Your task to perform on an android device: Go to Amazon Image 0: 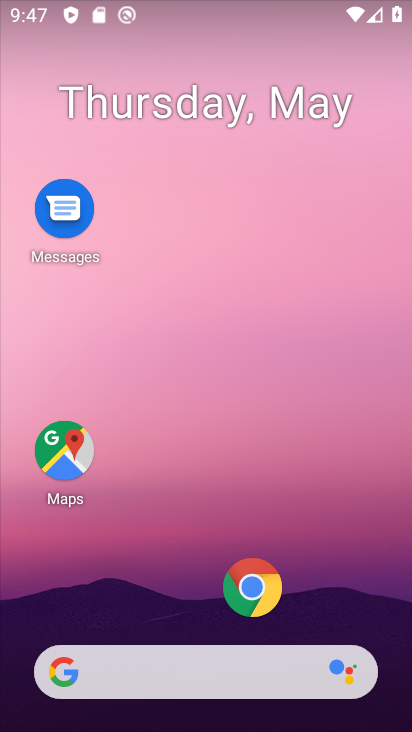
Step 0: click (262, 582)
Your task to perform on an android device: Go to Amazon Image 1: 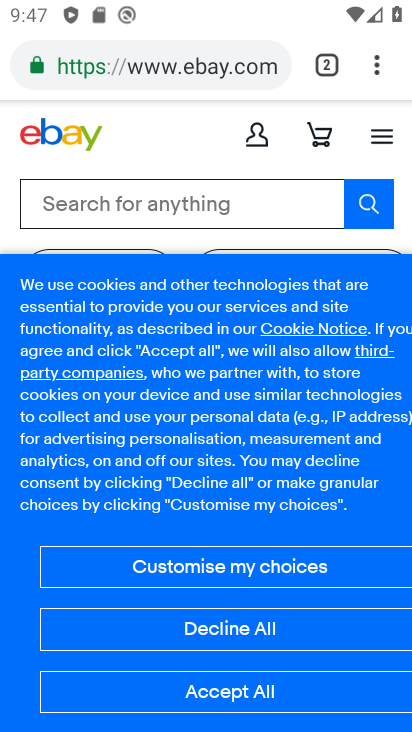
Step 1: click (321, 52)
Your task to perform on an android device: Go to Amazon Image 2: 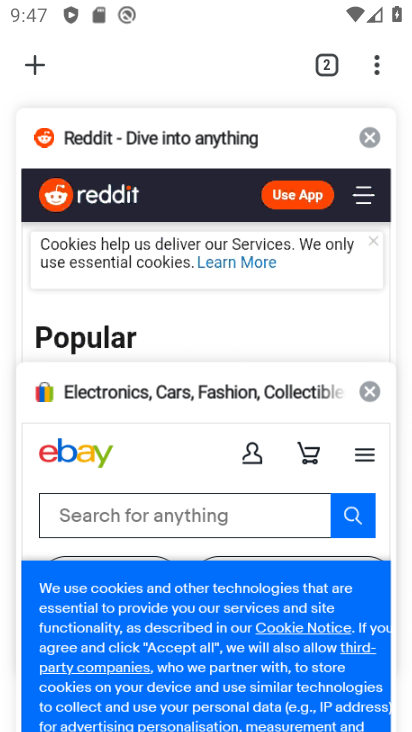
Step 2: click (29, 62)
Your task to perform on an android device: Go to Amazon Image 3: 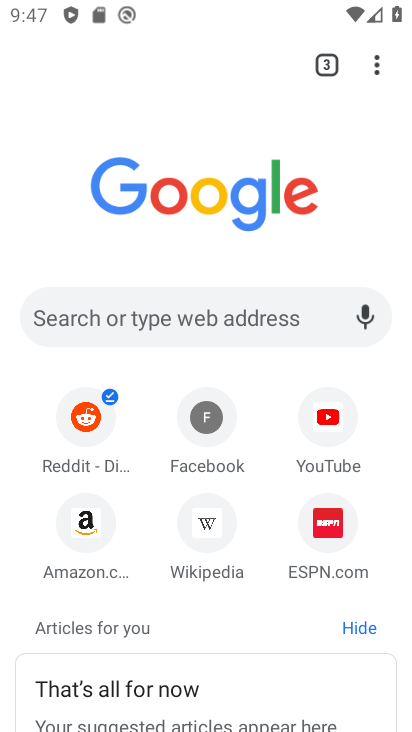
Step 3: click (72, 531)
Your task to perform on an android device: Go to Amazon Image 4: 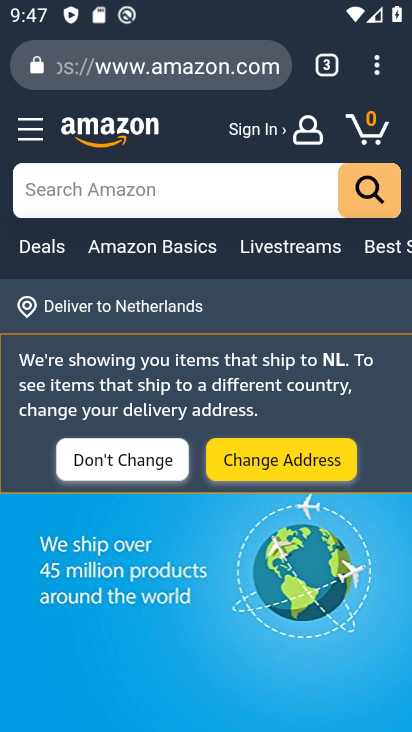
Step 4: task complete